Your task to perform on an android device: Open my contact list Image 0: 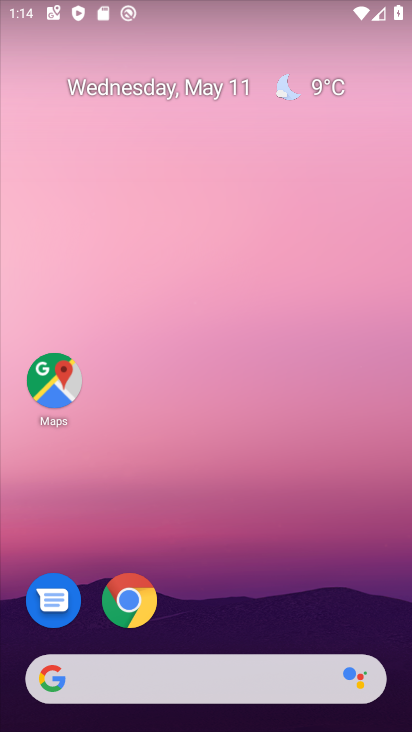
Step 0: drag from (196, 709) to (210, 6)
Your task to perform on an android device: Open my contact list Image 1: 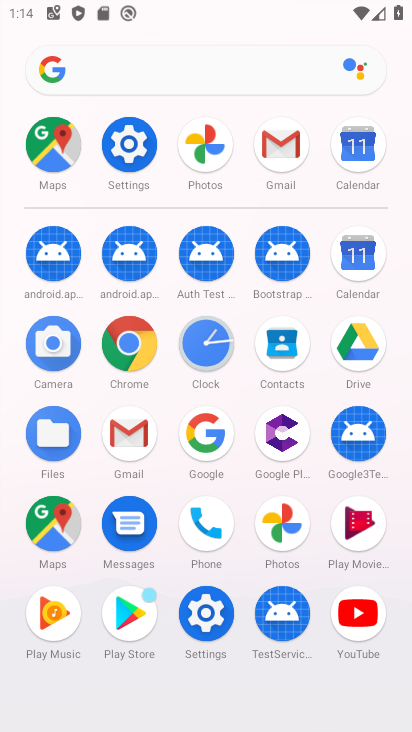
Step 1: click (275, 358)
Your task to perform on an android device: Open my contact list Image 2: 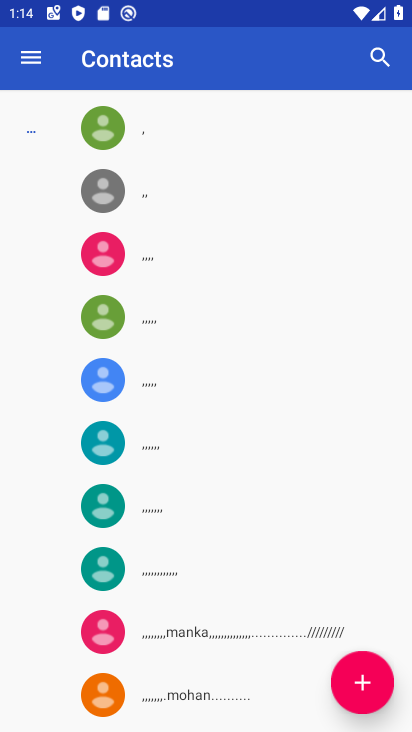
Step 2: task complete